Your task to perform on an android device: Open calendar and show me the fourth week of next month Image 0: 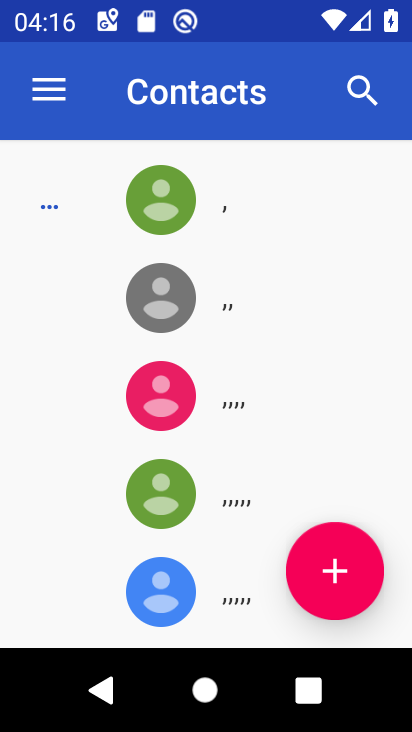
Step 0: press home button
Your task to perform on an android device: Open calendar and show me the fourth week of next month Image 1: 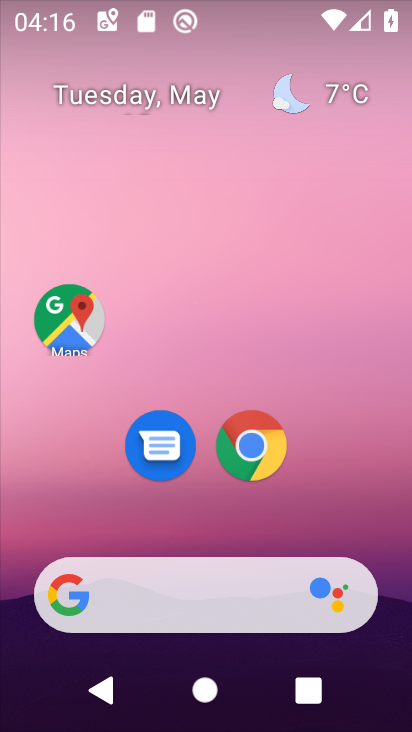
Step 1: drag from (239, 526) to (240, 7)
Your task to perform on an android device: Open calendar and show me the fourth week of next month Image 2: 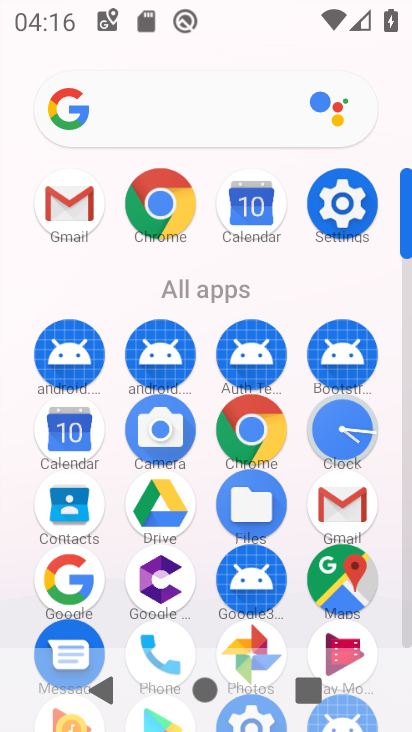
Step 2: click (67, 443)
Your task to perform on an android device: Open calendar and show me the fourth week of next month Image 3: 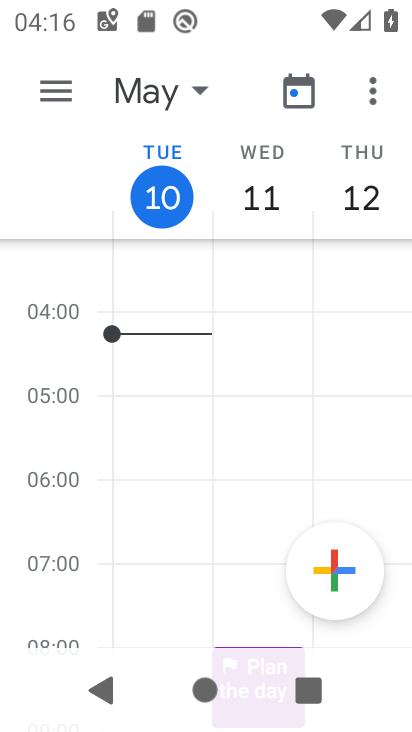
Step 3: click (52, 98)
Your task to perform on an android device: Open calendar and show me the fourth week of next month Image 4: 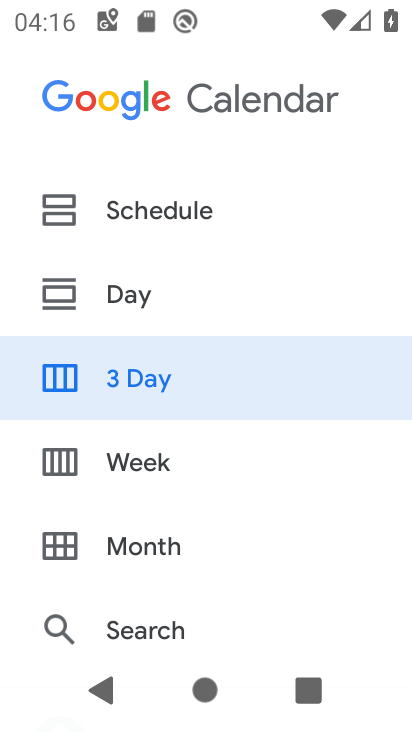
Step 4: click (150, 471)
Your task to perform on an android device: Open calendar and show me the fourth week of next month Image 5: 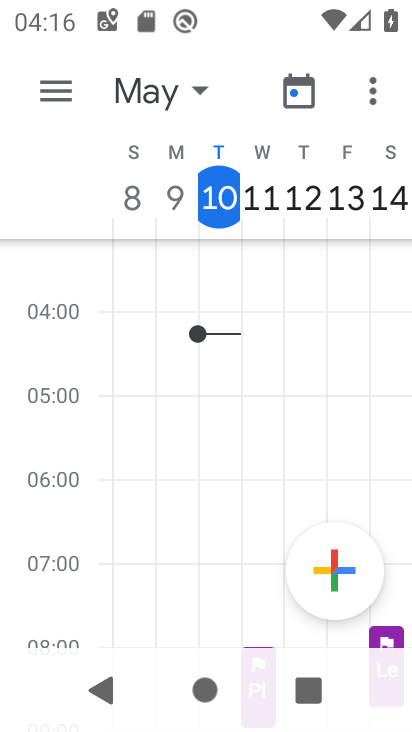
Step 5: task complete